Your task to perform on an android device: change the clock display to show seconds Image 0: 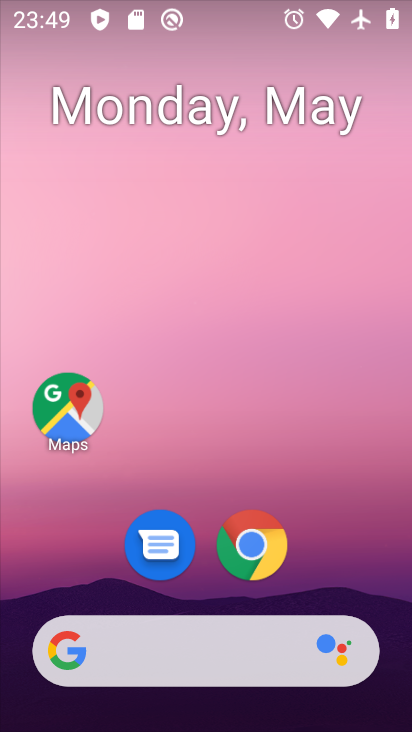
Step 0: drag from (319, 583) to (311, 13)
Your task to perform on an android device: change the clock display to show seconds Image 1: 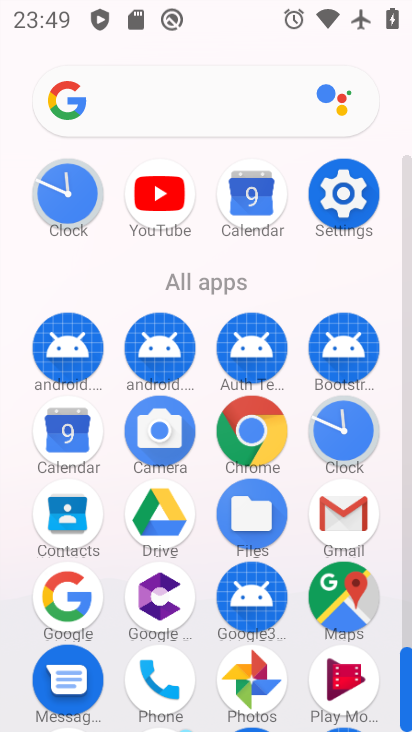
Step 1: click (354, 430)
Your task to perform on an android device: change the clock display to show seconds Image 2: 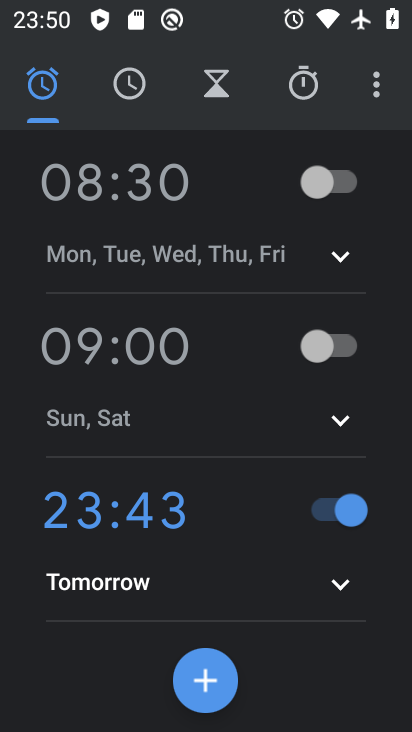
Step 2: click (375, 99)
Your task to perform on an android device: change the clock display to show seconds Image 3: 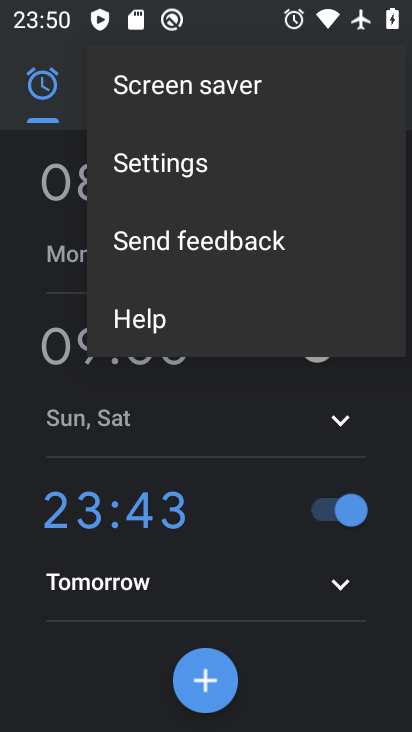
Step 3: click (284, 171)
Your task to perform on an android device: change the clock display to show seconds Image 4: 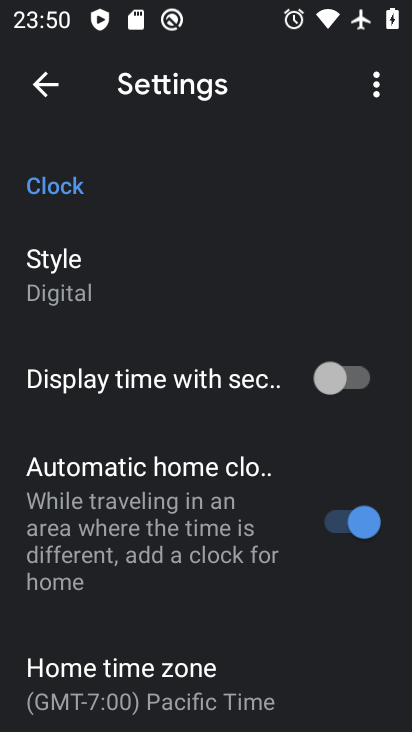
Step 4: click (364, 385)
Your task to perform on an android device: change the clock display to show seconds Image 5: 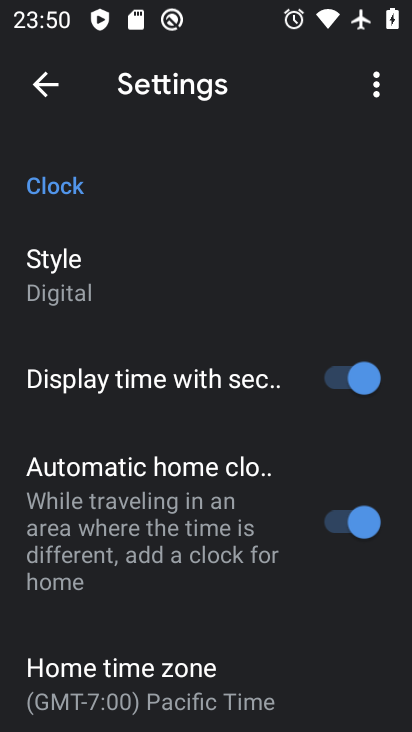
Step 5: task complete